Your task to perform on an android device: open sync settings in chrome Image 0: 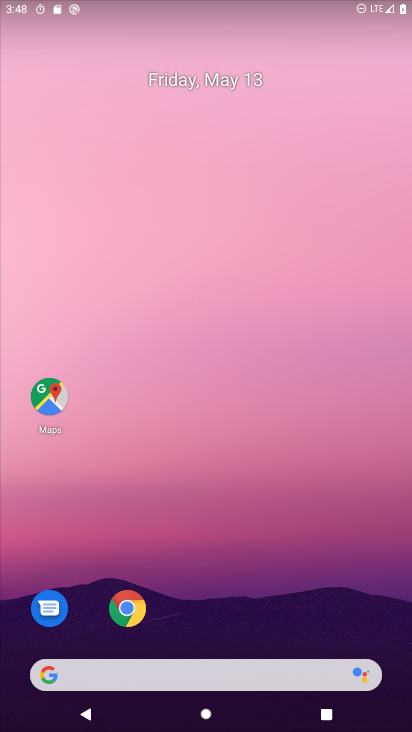
Step 0: click (123, 601)
Your task to perform on an android device: open sync settings in chrome Image 1: 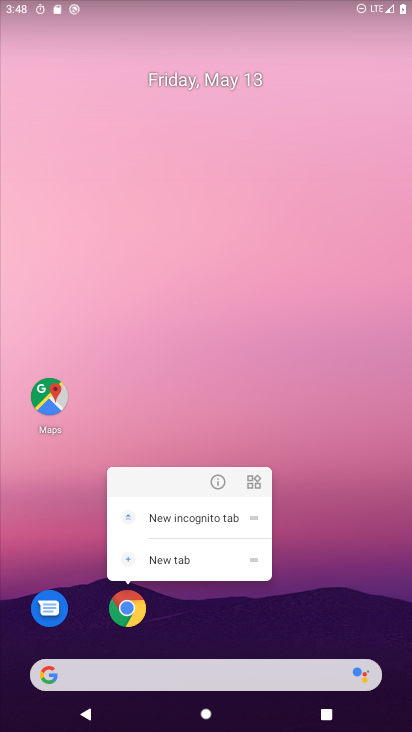
Step 1: click (129, 605)
Your task to perform on an android device: open sync settings in chrome Image 2: 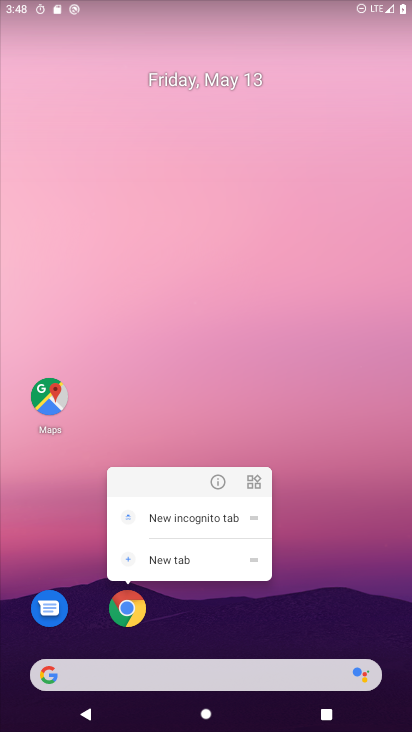
Step 2: click (129, 605)
Your task to perform on an android device: open sync settings in chrome Image 3: 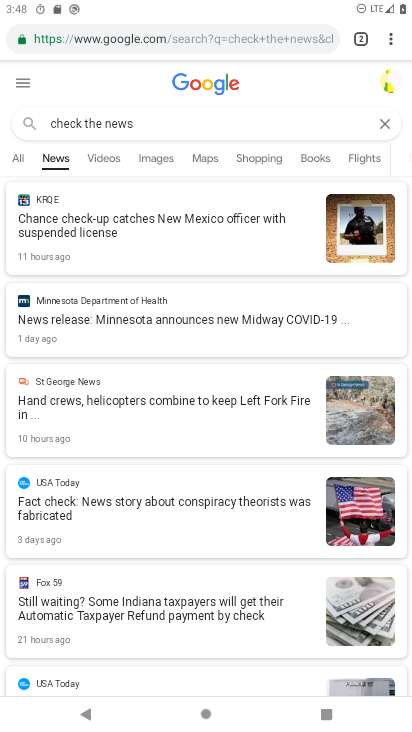
Step 3: click (389, 40)
Your task to perform on an android device: open sync settings in chrome Image 4: 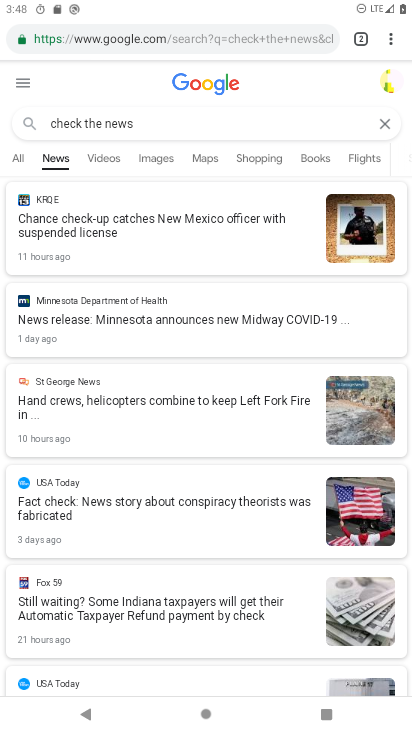
Step 4: drag from (389, 40) to (249, 428)
Your task to perform on an android device: open sync settings in chrome Image 5: 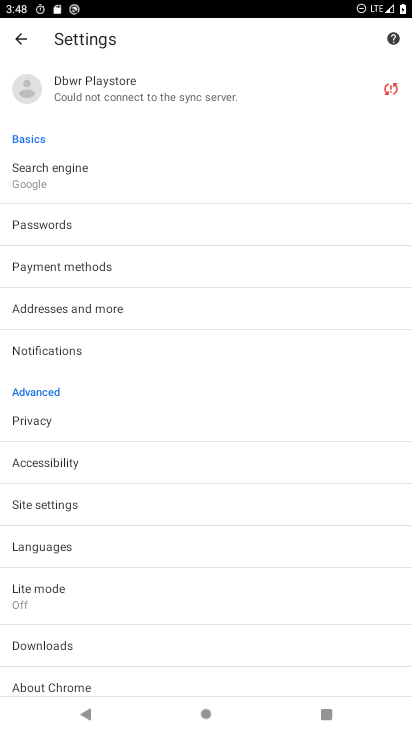
Step 5: click (43, 92)
Your task to perform on an android device: open sync settings in chrome Image 6: 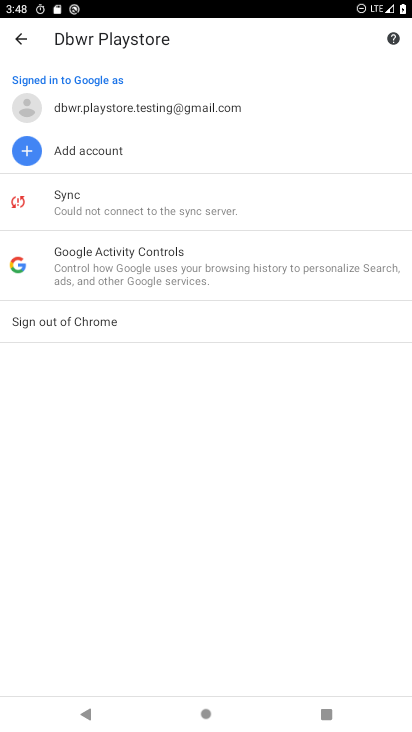
Step 6: click (73, 199)
Your task to perform on an android device: open sync settings in chrome Image 7: 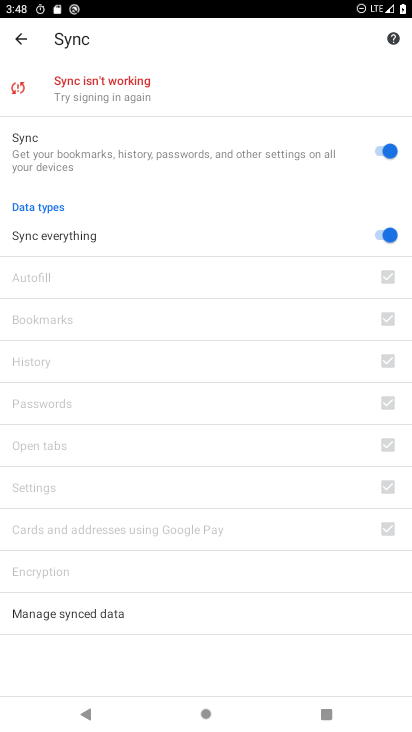
Step 7: task complete